Your task to perform on an android device: Go to settings Image 0: 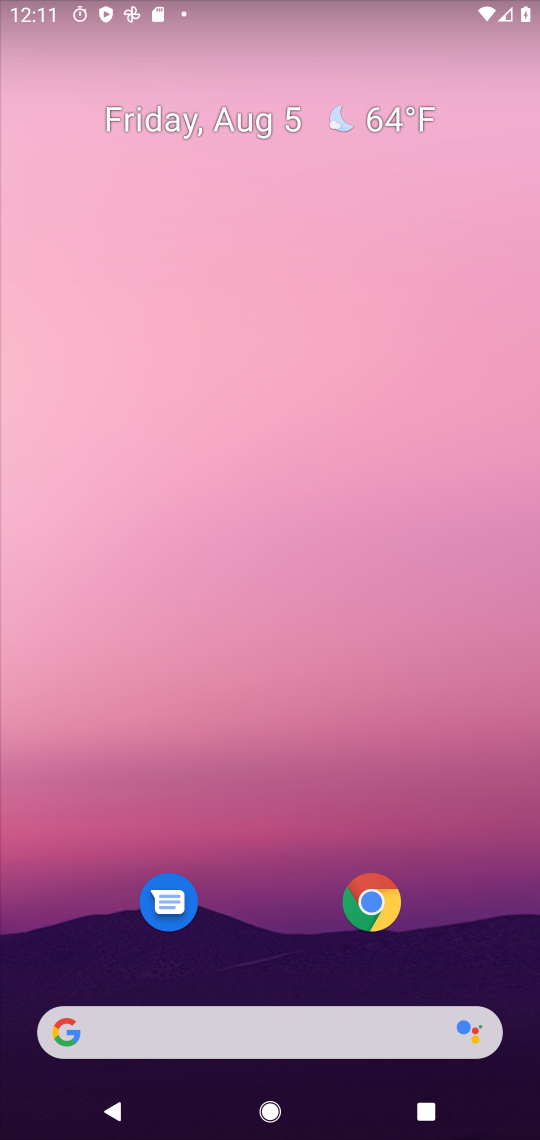
Step 0: press home button
Your task to perform on an android device: Go to settings Image 1: 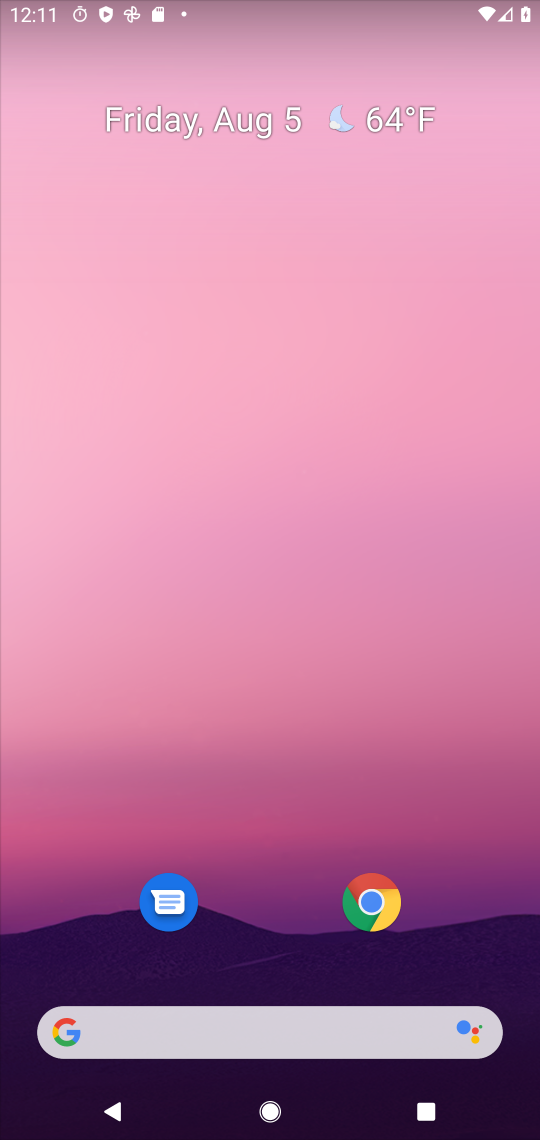
Step 1: drag from (406, 875) to (416, 393)
Your task to perform on an android device: Go to settings Image 2: 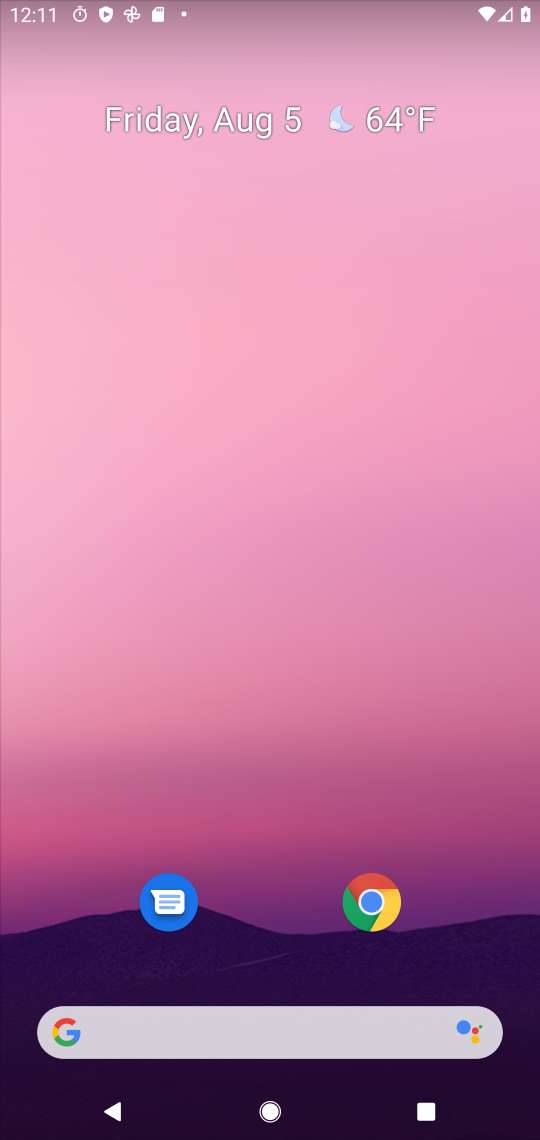
Step 2: drag from (209, 1045) to (225, 0)
Your task to perform on an android device: Go to settings Image 3: 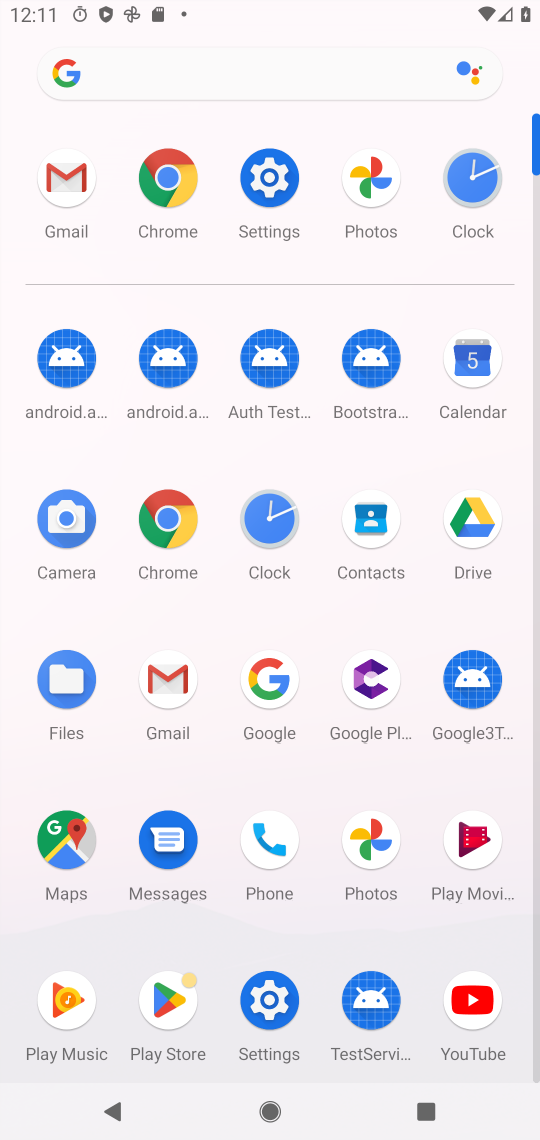
Step 3: click (266, 210)
Your task to perform on an android device: Go to settings Image 4: 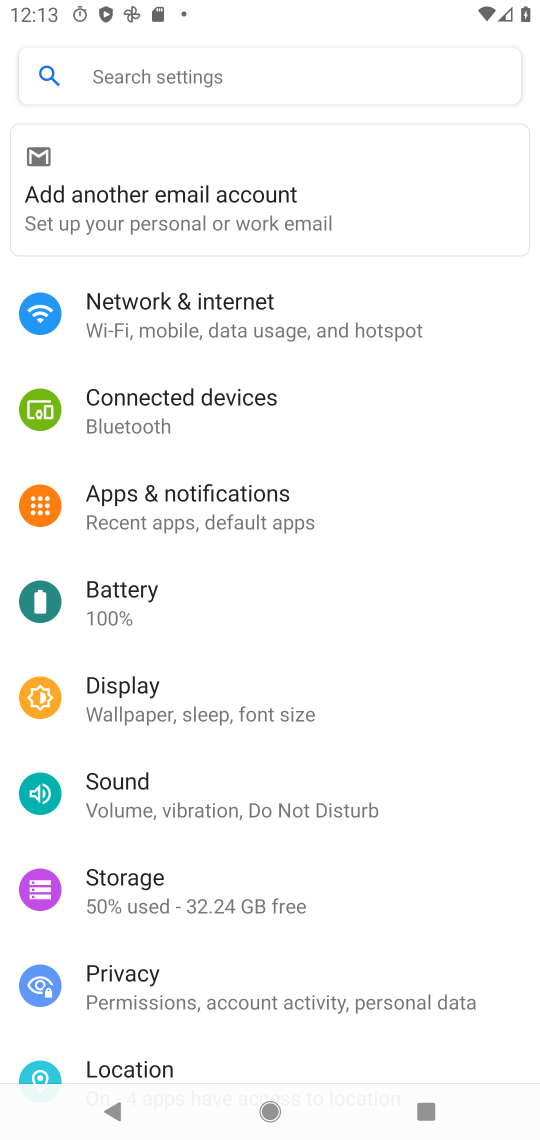
Step 4: task complete